Your task to perform on an android device: open app "Microsoft Outlook" (install if not already installed) Image 0: 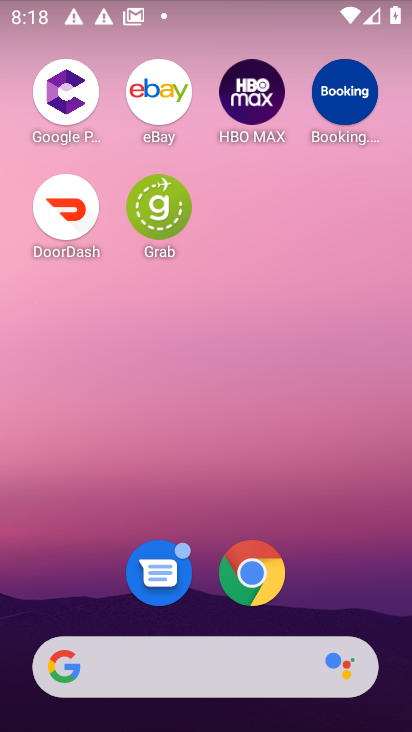
Step 0: drag from (78, 590) to (132, 128)
Your task to perform on an android device: open app "Microsoft Outlook" (install if not already installed) Image 1: 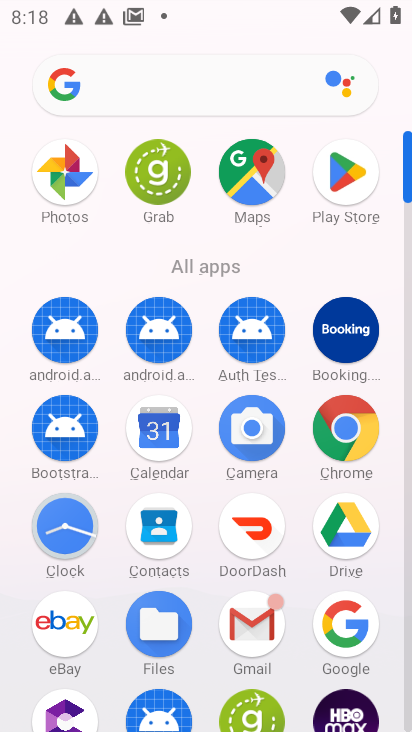
Step 1: drag from (169, 623) to (195, 274)
Your task to perform on an android device: open app "Microsoft Outlook" (install if not already installed) Image 2: 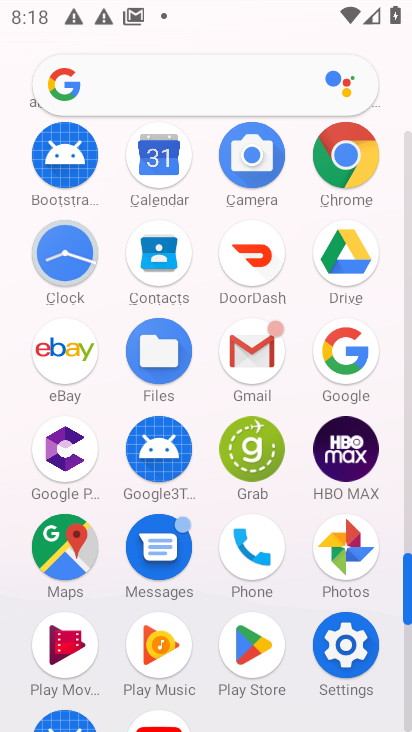
Step 2: click (264, 662)
Your task to perform on an android device: open app "Microsoft Outlook" (install if not already installed) Image 3: 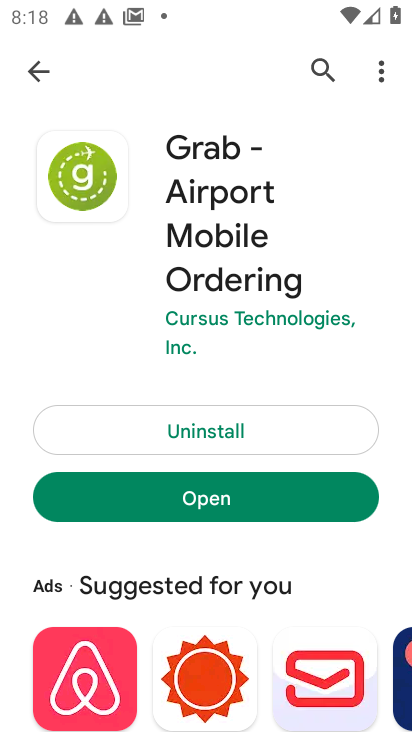
Step 3: click (35, 75)
Your task to perform on an android device: open app "Microsoft Outlook" (install if not already installed) Image 4: 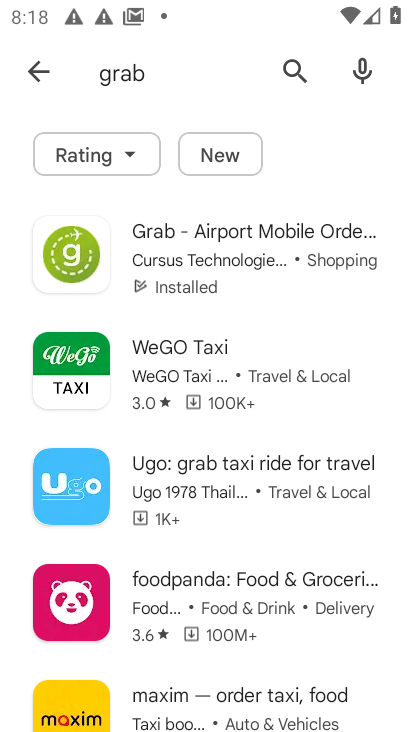
Step 4: click (183, 72)
Your task to perform on an android device: open app "Microsoft Outlook" (install if not already installed) Image 5: 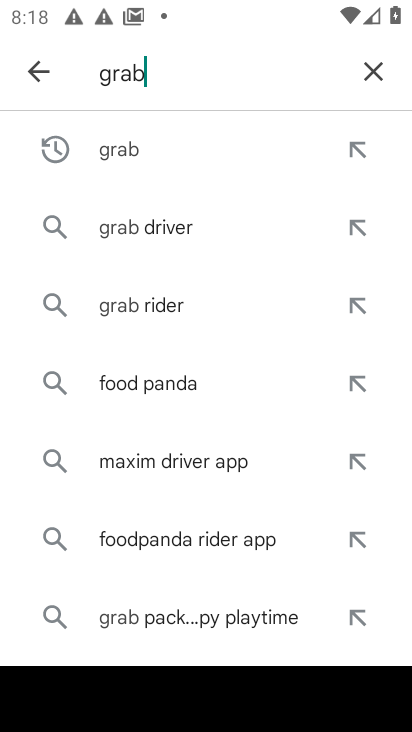
Step 5: click (376, 70)
Your task to perform on an android device: open app "Microsoft Outlook" (install if not already installed) Image 6: 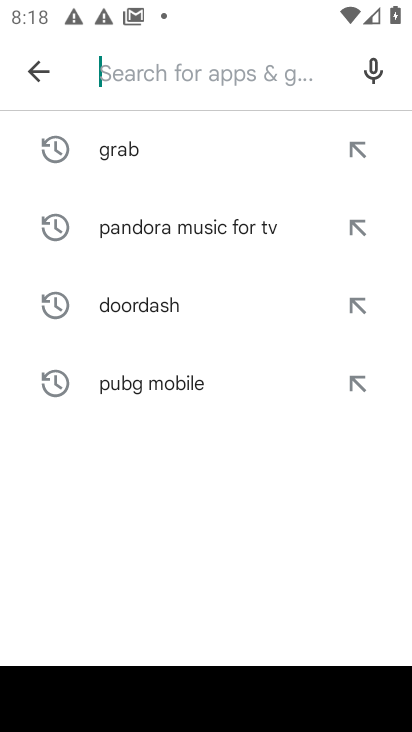
Step 6: type ""
Your task to perform on an android device: open app "Microsoft Outlook" (install if not already installed) Image 7: 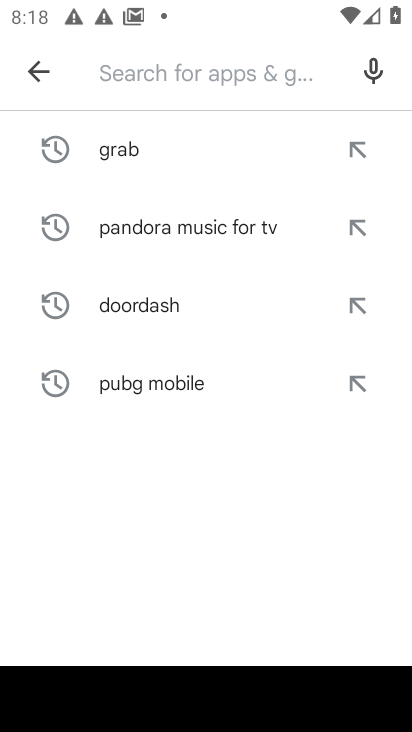
Step 7: type "miicrosoft outlook"
Your task to perform on an android device: open app "Microsoft Outlook" (install if not already installed) Image 8: 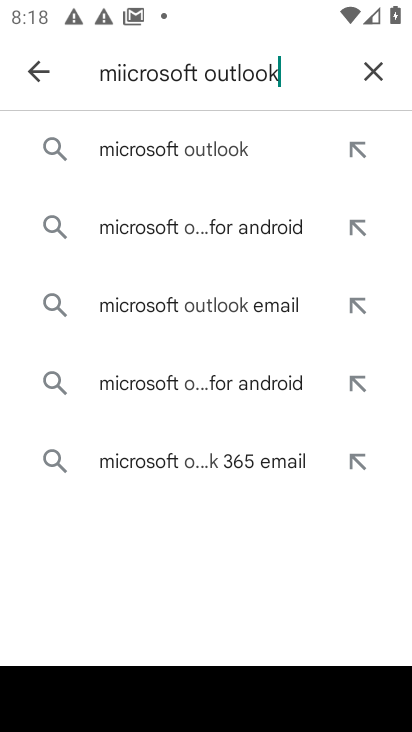
Step 8: click (233, 144)
Your task to perform on an android device: open app "Microsoft Outlook" (install if not already installed) Image 9: 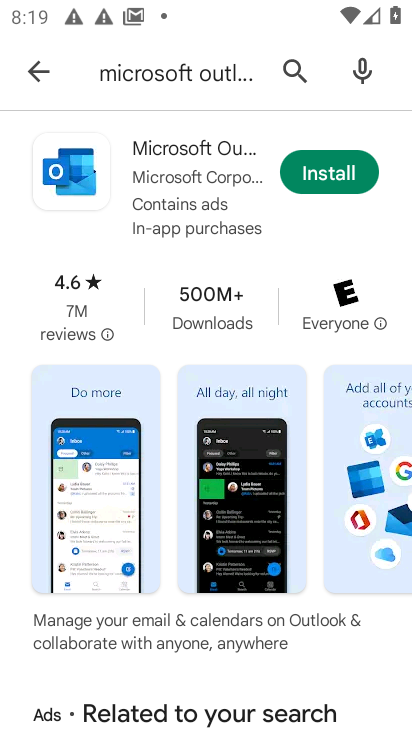
Step 9: click (324, 182)
Your task to perform on an android device: open app "Microsoft Outlook" (install if not already installed) Image 10: 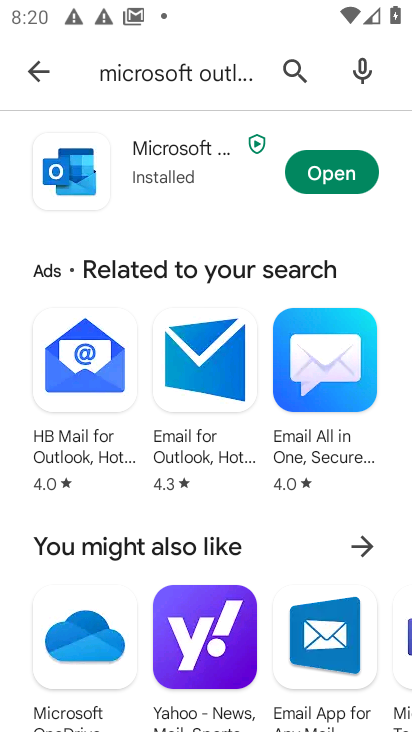
Step 10: click (326, 184)
Your task to perform on an android device: open app "Microsoft Outlook" (install if not already installed) Image 11: 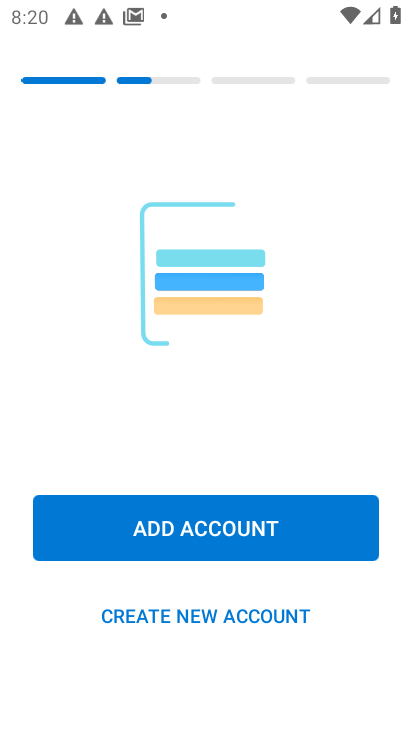
Step 11: task complete